Your task to perform on an android device: turn off location Image 0: 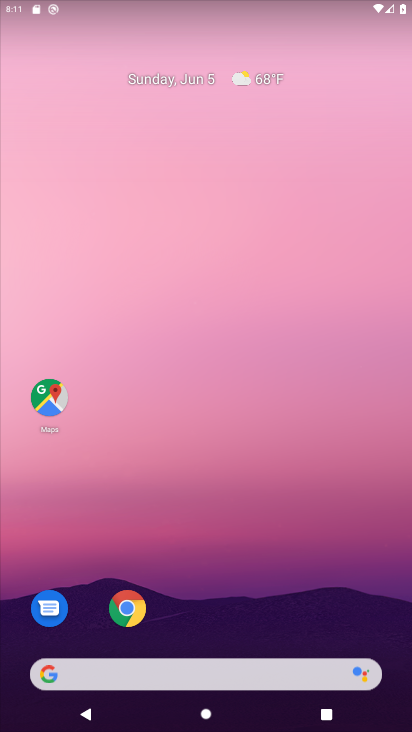
Step 0: drag from (7, 631) to (314, 69)
Your task to perform on an android device: turn off location Image 1: 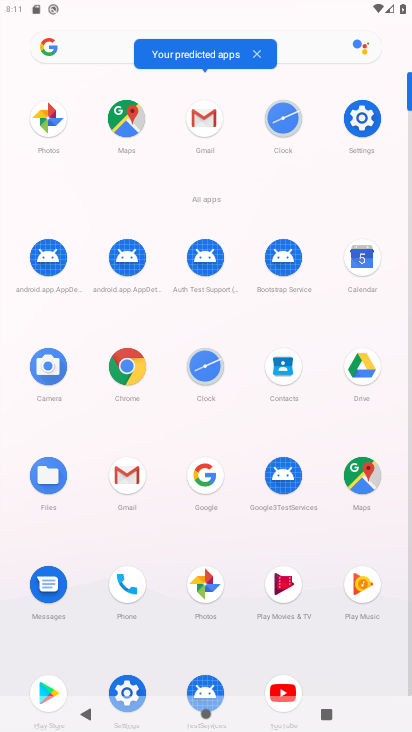
Step 1: click (122, 684)
Your task to perform on an android device: turn off location Image 2: 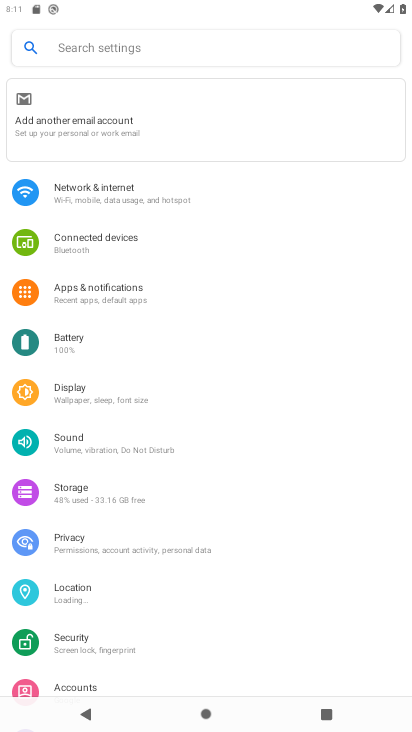
Step 2: drag from (85, 506) to (190, 188)
Your task to perform on an android device: turn off location Image 3: 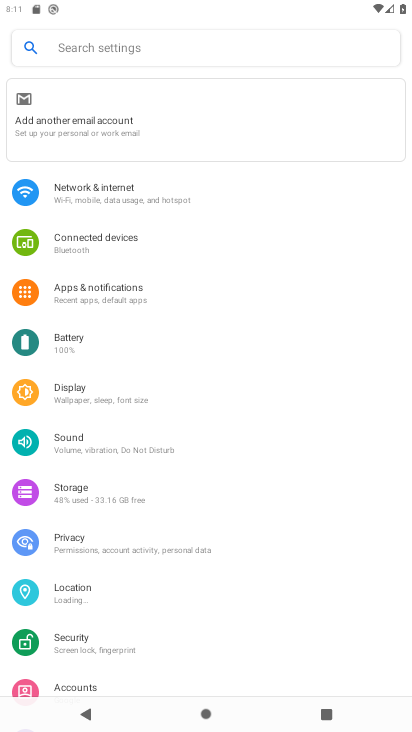
Step 3: click (52, 587)
Your task to perform on an android device: turn off location Image 4: 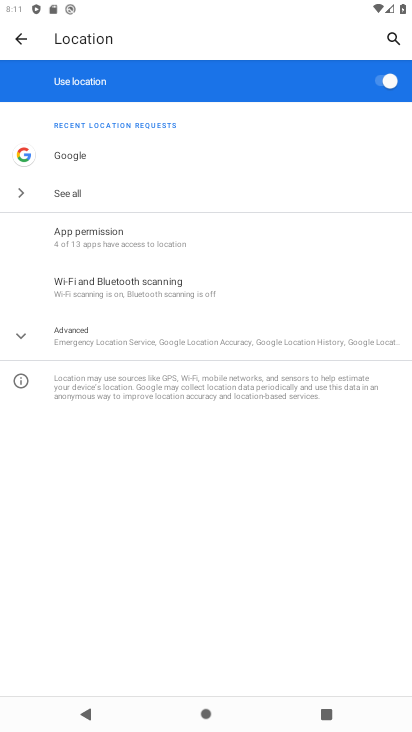
Step 4: click (386, 83)
Your task to perform on an android device: turn off location Image 5: 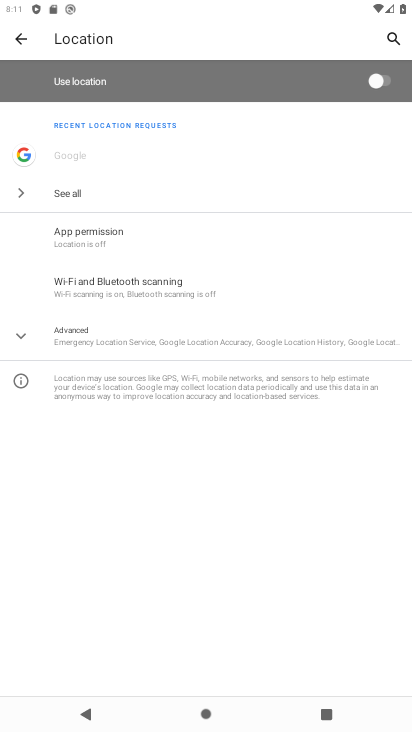
Step 5: task complete